Your task to perform on an android device: Open privacy settings Image 0: 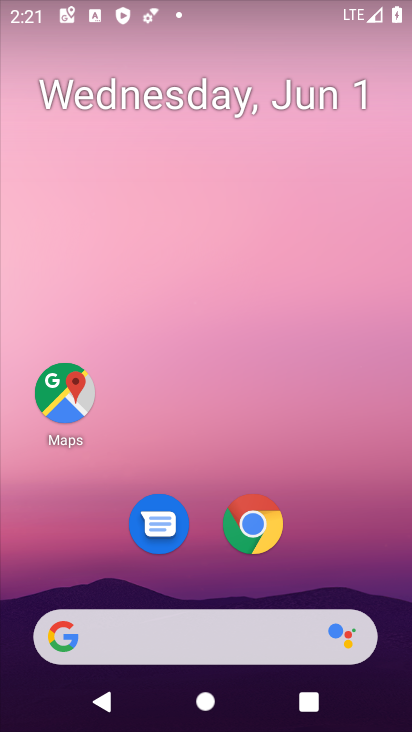
Step 0: drag from (322, 556) to (276, 67)
Your task to perform on an android device: Open privacy settings Image 1: 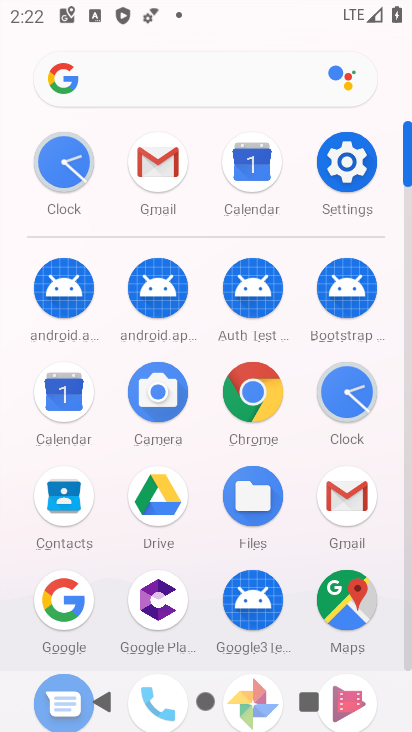
Step 1: click (344, 168)
Your task to perform on an android device: Open privacy settings Image 2: 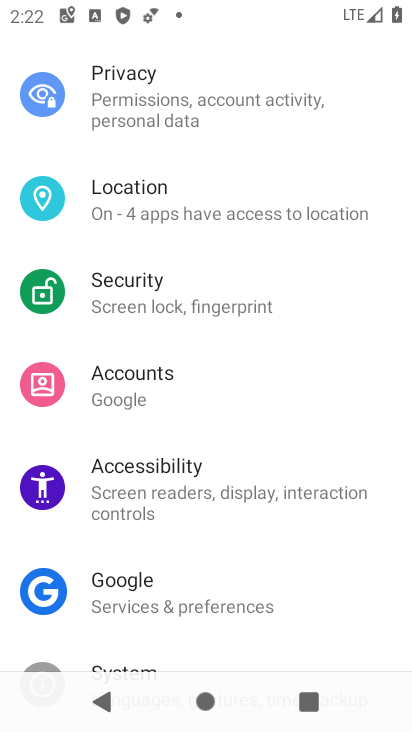
Step 2: click (203, 110)
Your task to perform on an android device: Open privacy settings Image 3: 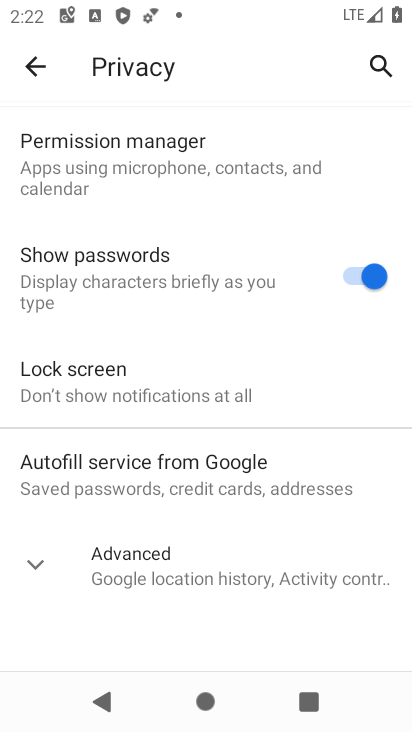
Step 3: task complete